Your task to perform on an android device: change the clock display to show seconds Image 0: 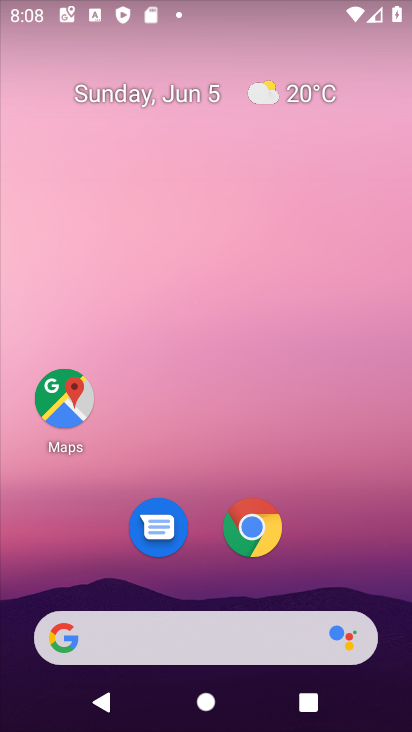
Step 0: drag from (215, 584) to (238, 59)
Your task to perform on an android device: change the clock display to show seconds Image 1: 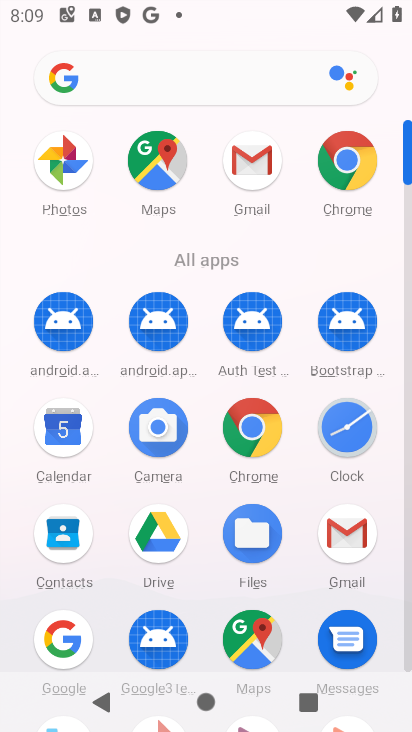
Step 1: click (350, 415)
Your task to perform on an android device: change the clock display to show seconds Image 2: 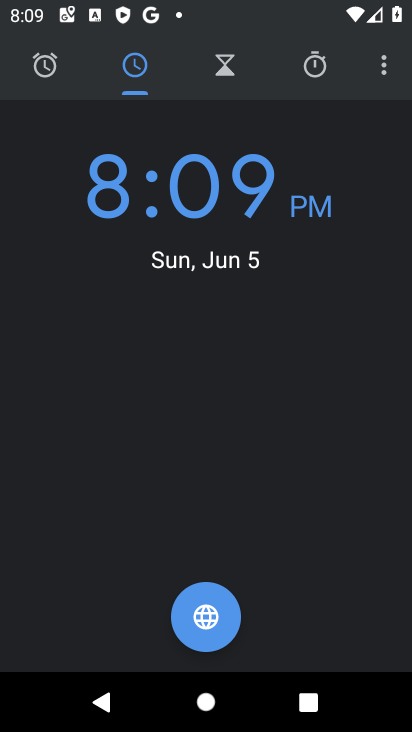
Step 2: click (394, 55)
Your task to perform on an android device: change the clock display to show seconds Image 3: 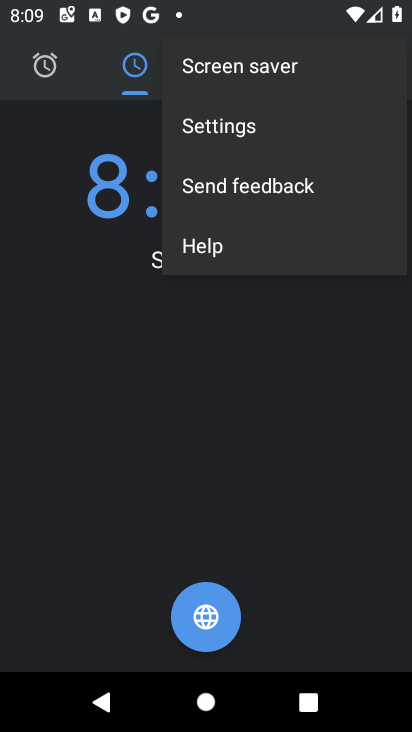
Step 3: click (276, 146)
Your task to perform on an android device: change the clock display to show seconds Image 4: 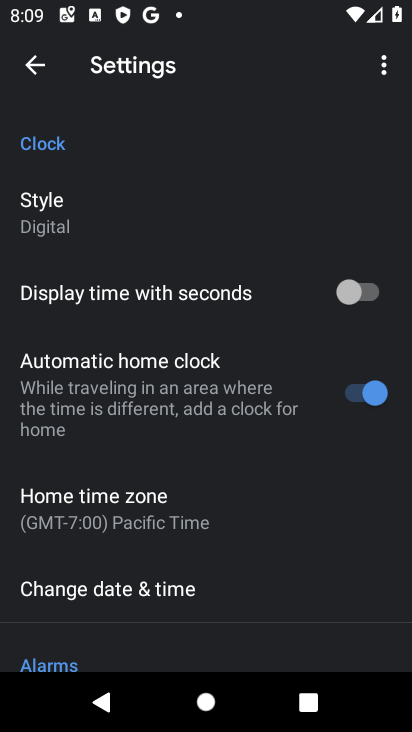
Step 4: click (375, 287)
Your task to perform on an android device: change the clock display to show seconds Image 5: 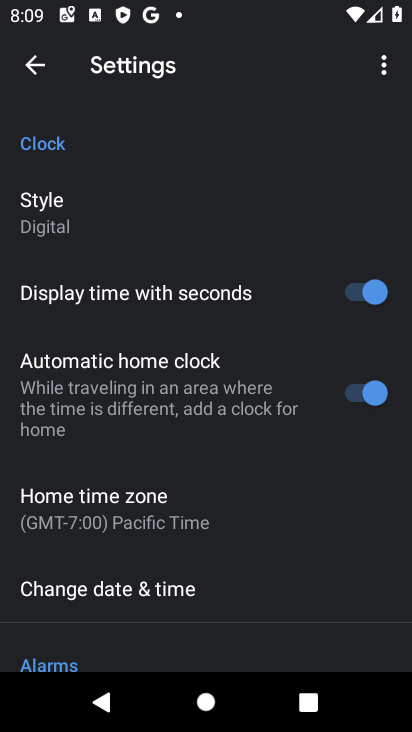
Step 5: task complete